Your task to perform on an android device: open app "TextNow: Call + Text Unlimited" (install if not already installed), go to login, and select forgot password Image 0: 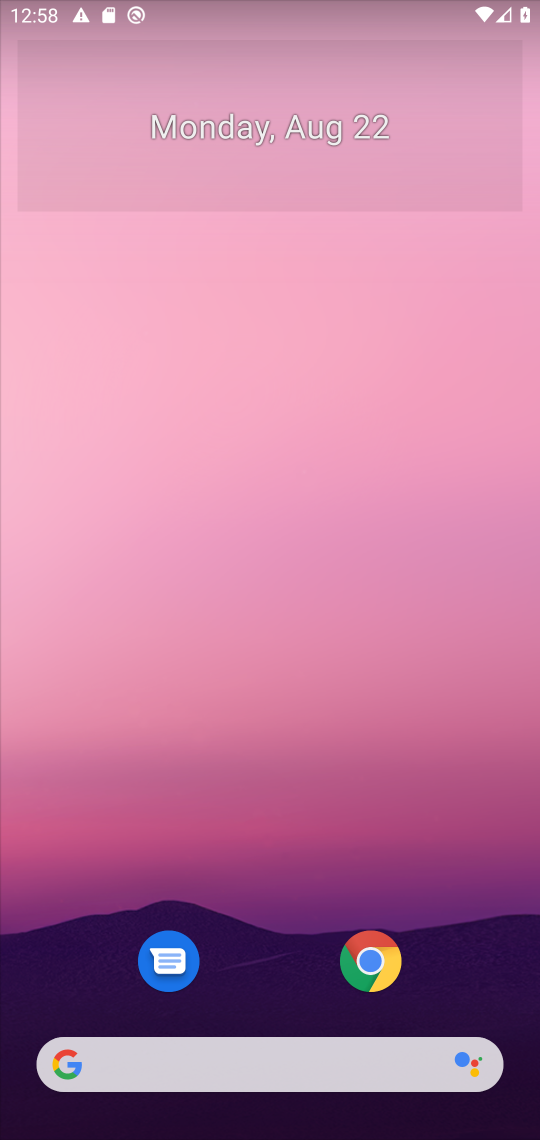
Step 0: press home button
Your task to perform on an android device: open app "TextNow: Call + Text Unlimited" (install if not already installed), go to login, and select forgot password Image 1: 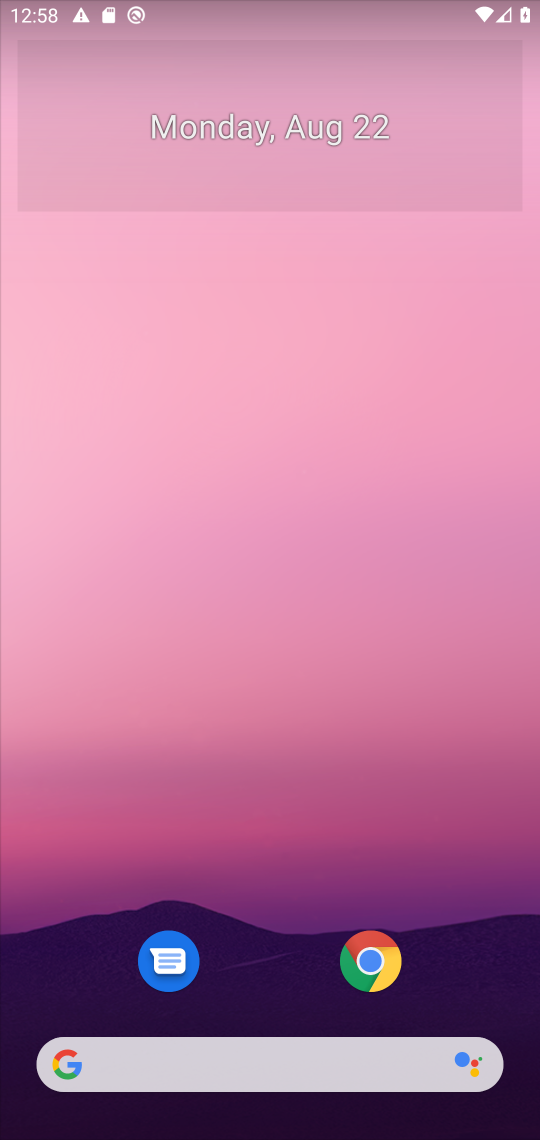
Step 1: drag from (462, 964) to (435, 220)
Your task to perform on an android device: open app "TextNow: Call + Text Unlimited" (install if not already installed), go to login, and select forgot password Image 2: 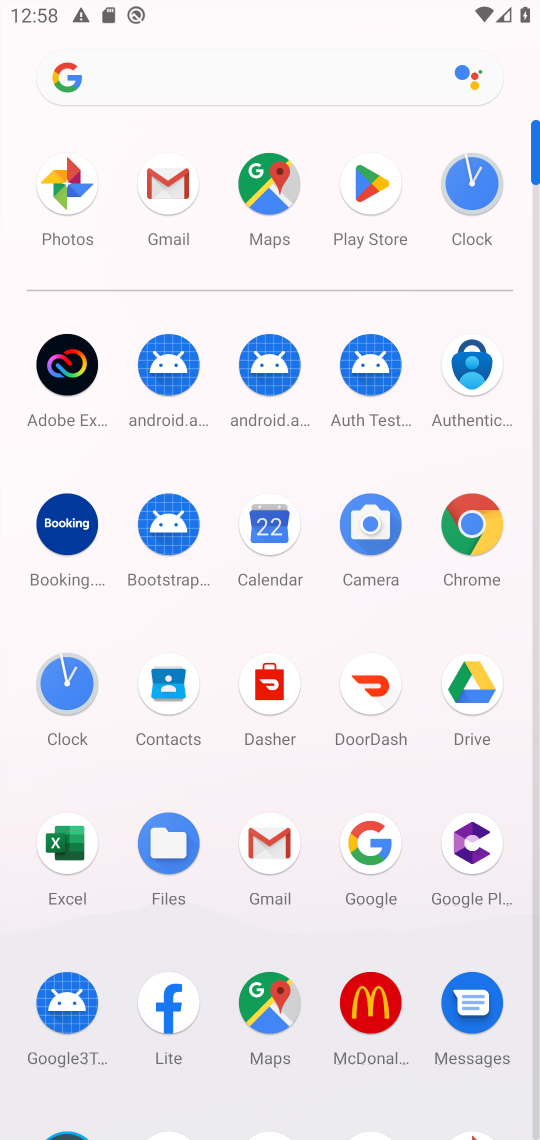
Step 2: click (366, 183)
Your task to perform on an android device: open app "TextNow: Call + Text Unlimited" (install if not already installed), go to login, and select forgot password Image 3: 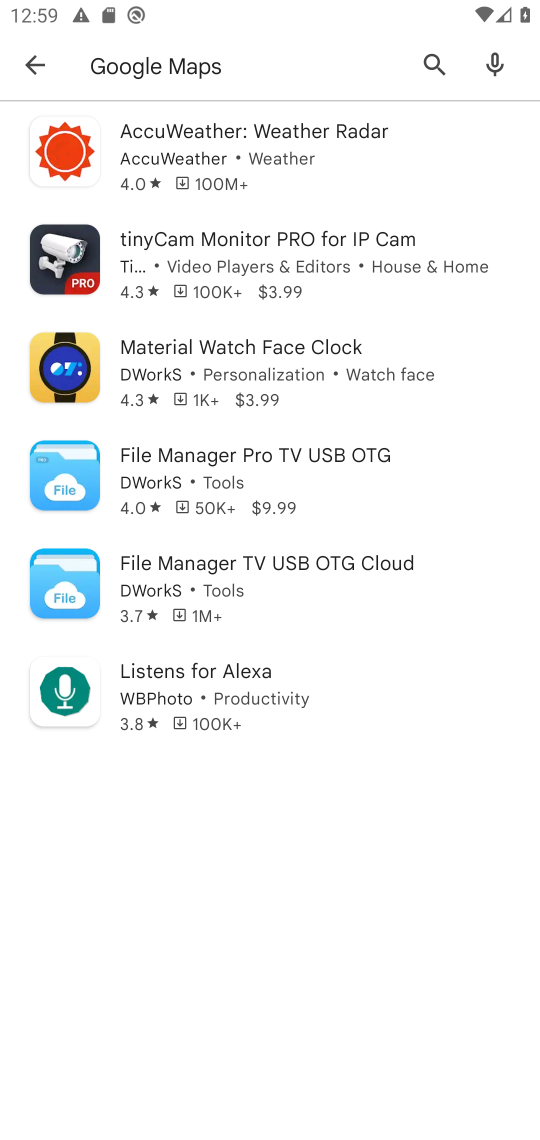
Step 3: press back button
Your task to perform on an android device: open app "TextNow: Call + Text Unlimited" (install if not already installed), go to login, and select forgot password Image 4: 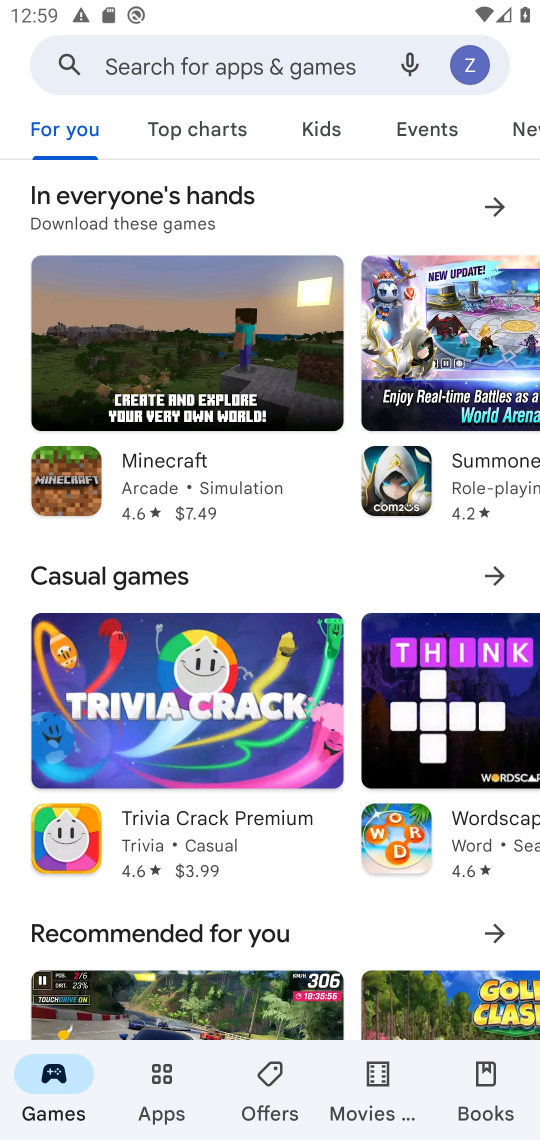
Step 4: click (306, 48)
Your task to perform on an android device: open app "TextNow: Call + Text Unlimited" (install if not already installed), go to login, and select forgot password Image 5: 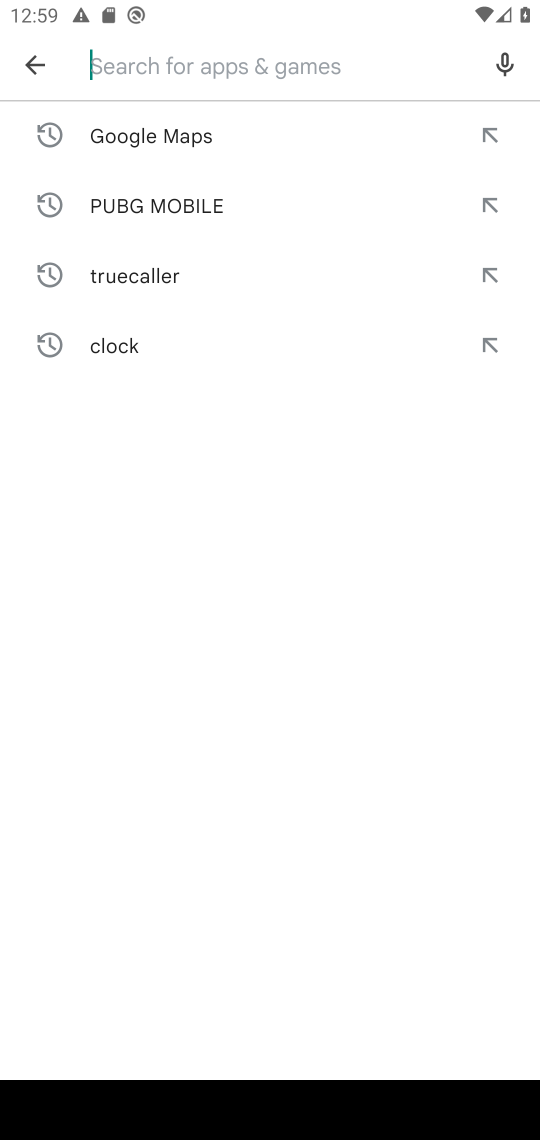
Step 5: type "TextNow: Call + Text Unlimited"
Your task to perform on an android device: open app "TextNow: Call + Text Unlimited" (install if not already installed), go to login, and select forgot password Image 6: 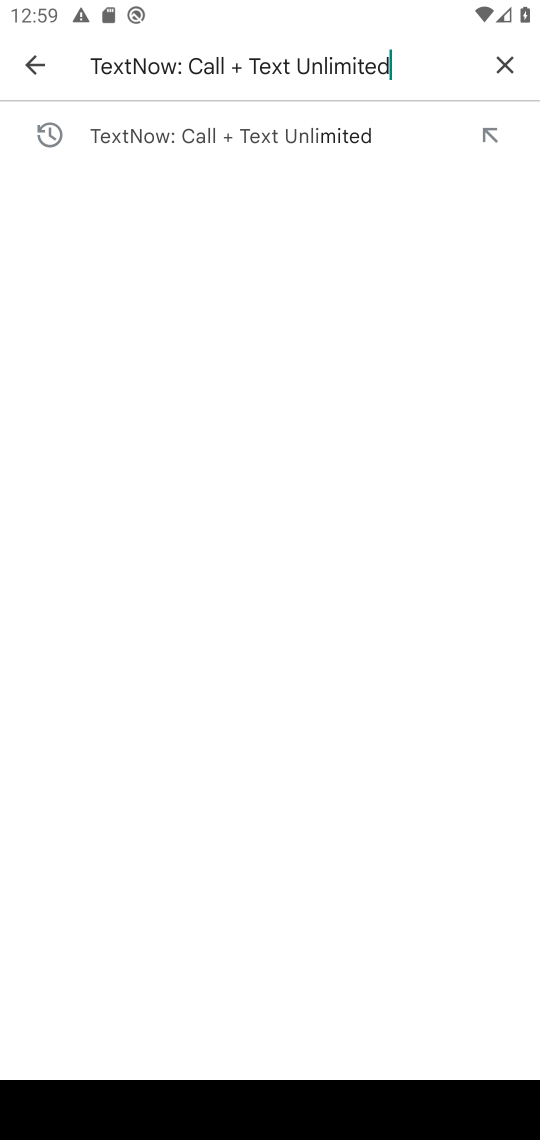
Step 6: press enter
Your task to perform on an android device: open app "TextNow: Call + Text Unlimited" (install if not already installed), go to login, and select forgot password Image 7: 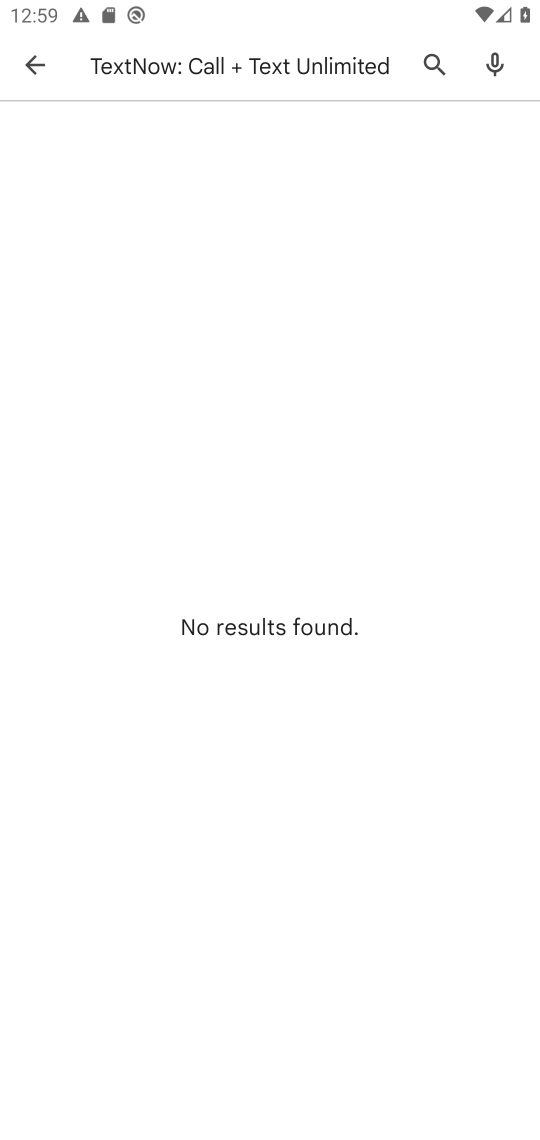
Step 7: task complete